Your task to perform on an android device: When is my next appointment? Image 0: 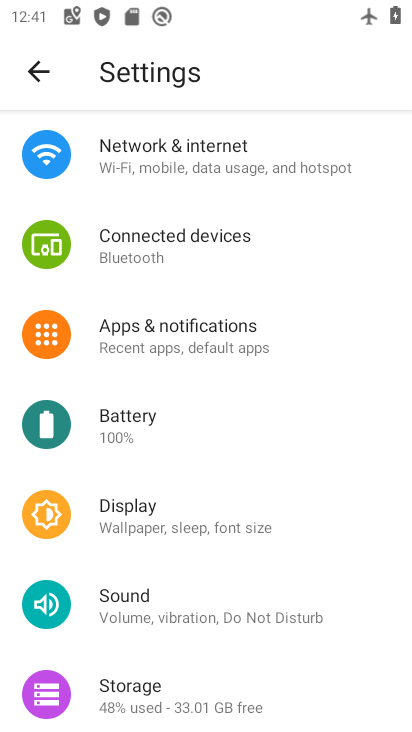
Step 0: press home button
Your task to perform on an android device: When is my next appointment? Image 1: 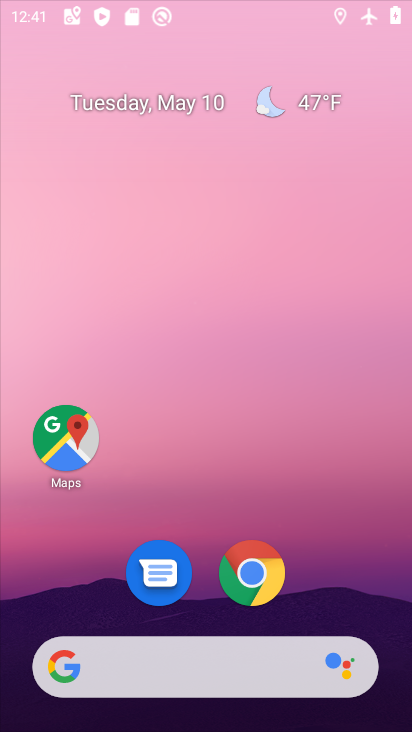
Step 1: drag from (181, 608) to (238, 240)
Your task to perform on an android device: When is my next appointment? Image 2: 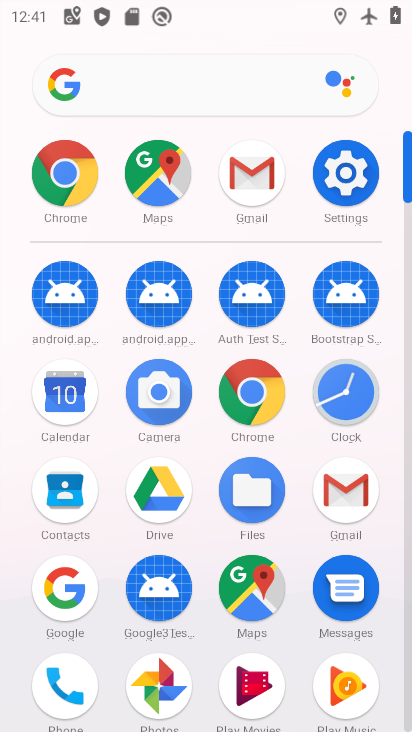
Step 2: click (26, 403)
Your task to perform on an android device: When is my next appointment? Image 3: 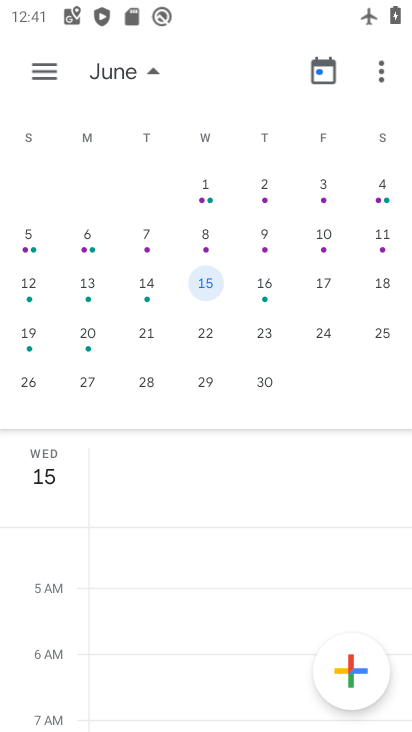
Step 3: click (195, 282)
Your task to perform on an android device: When is my next appointment? Image 4: 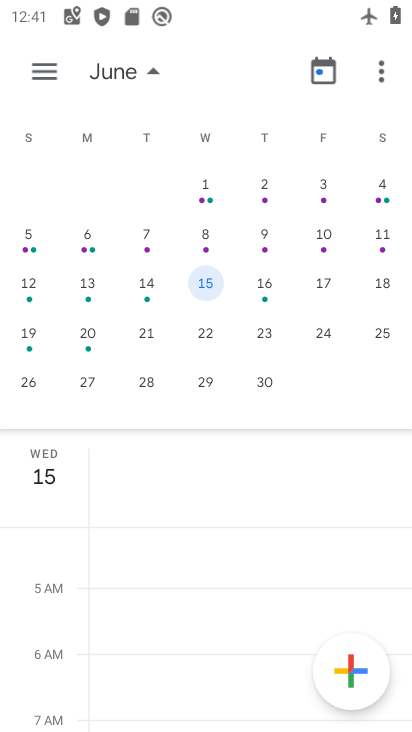
Step 4: click (125, 60)
Your task to perform on an android device: When is my next appointment? Image 5: 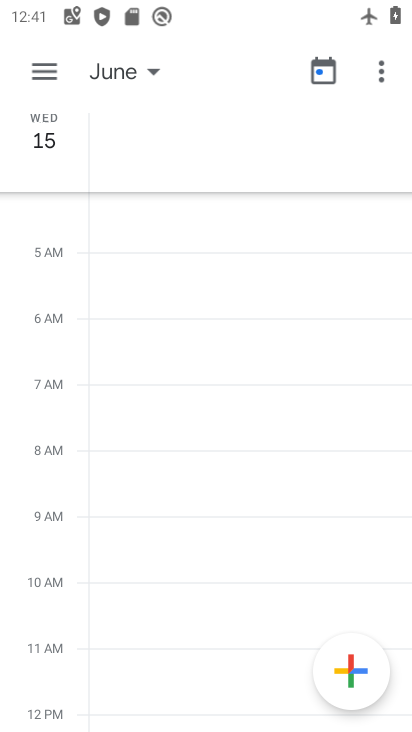
Step 5: click (125, 60)
Your task to perform on an android device: When is my next appointment? Image 6: 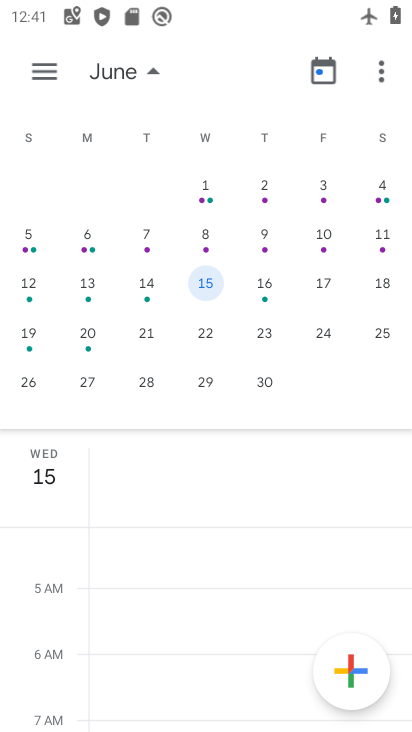
Step 6: drag from (21, 214) to (410, 252)
Your task to perform on an android device: When is my next appointment? Image 7: 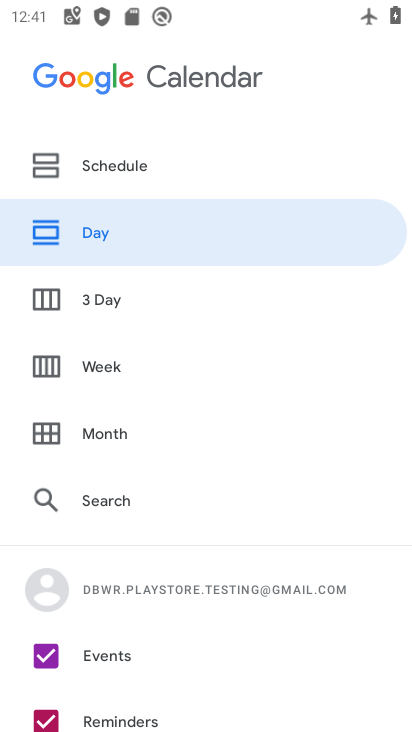
Step 7: press back button
Your task to perform on an android device: When is my next appointment? Image 8: 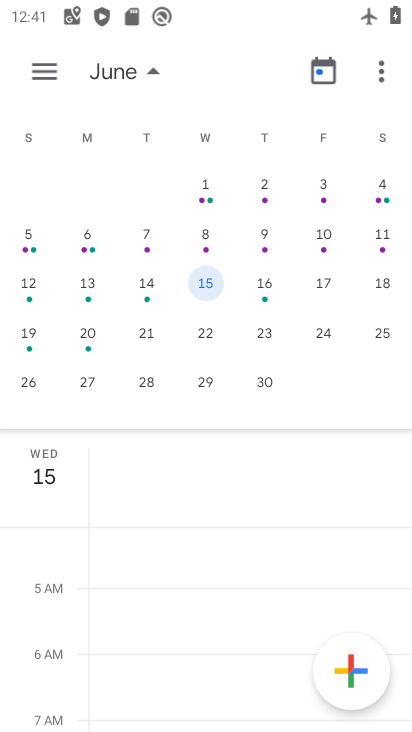
Step 8: drag from (101, 303) to (409, 315)
Your task to perform on an android device: When is my next appointment? Image 9: 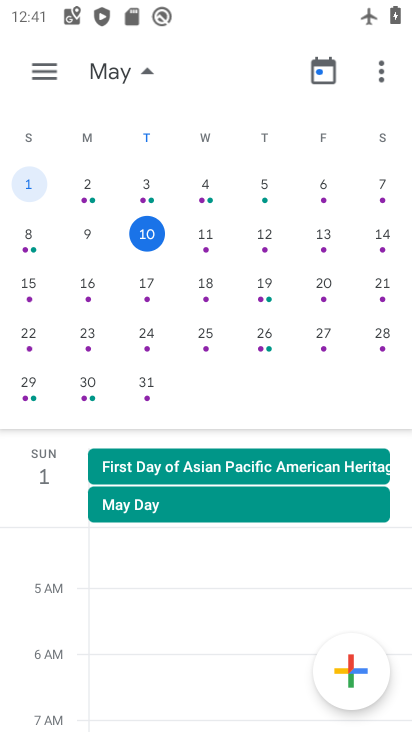
Step 9: click (150, 235)
Your task to perform on an android device: When is my next appointment? Image 10: 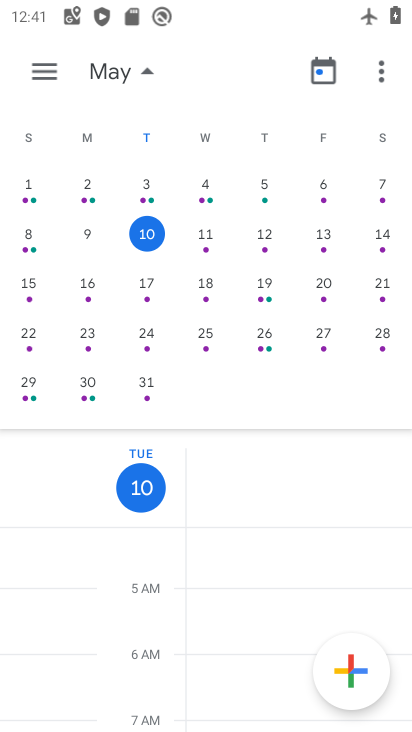
Step 10: drag from (191, 567) to (368, 104)
Your task to perform on an android device: When is my next appointment? Image 11: 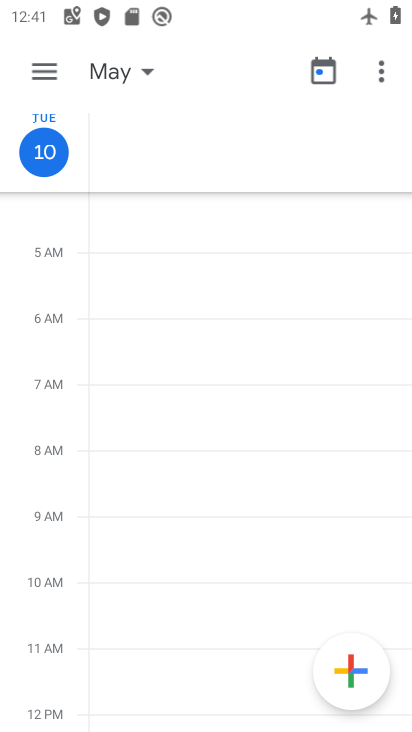
Step 11: drag from (218, 562) to (295, 221)
Your task to perform on an android device: When is my next appointment? Image 12: 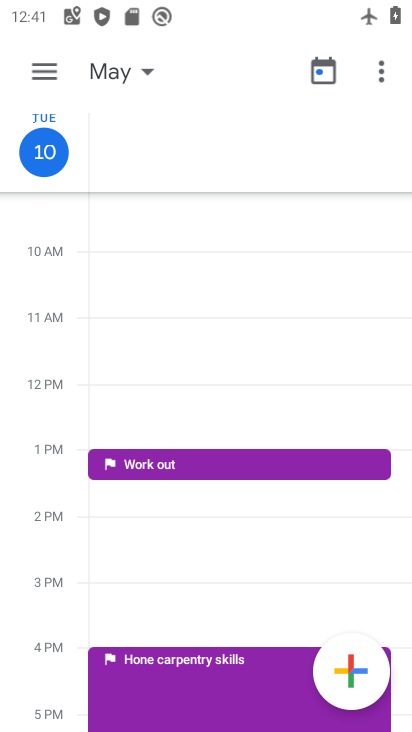
Step 12: drag from (188, 587) to (238, 388)
Your task to perform on an android device: When is my next appointment? Image 13: 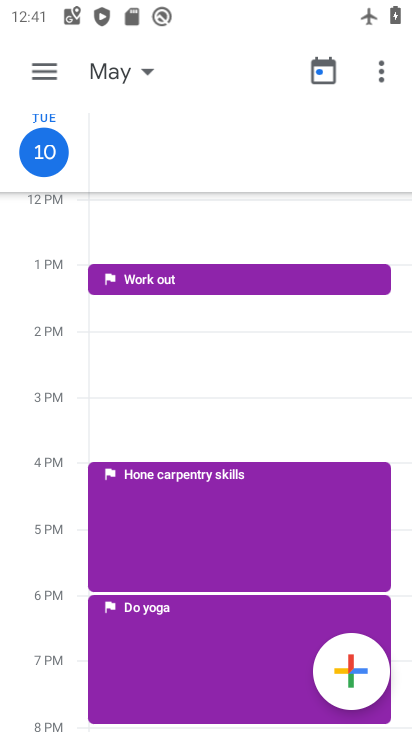
Step 13: click (167, 516)
Your task to perform on an android device: When is my next appointment? Image 14: 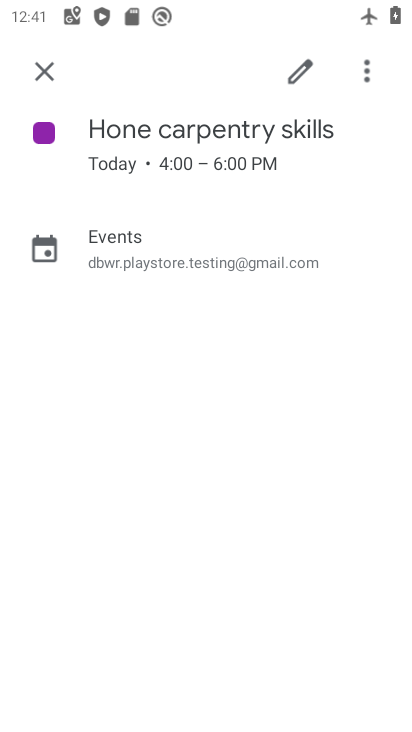
Step 14: task complete